Your task to perform on an android device: delete the emails in spam in the gmail app Image 0: 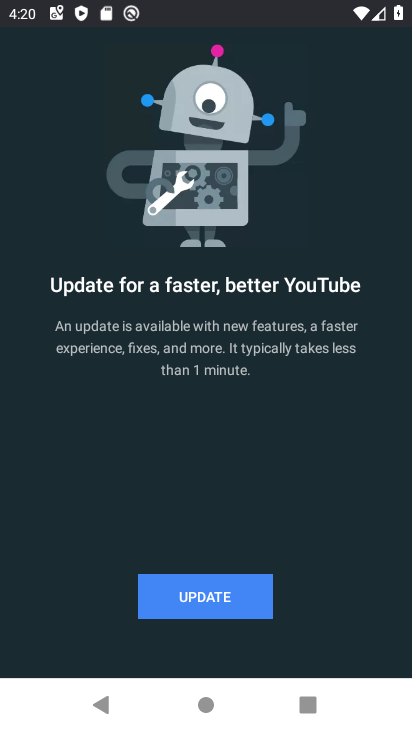
Step 0: click (215, 597)
Your task to perform on an android device: delete the emails in spam in the gmail app Image 1: 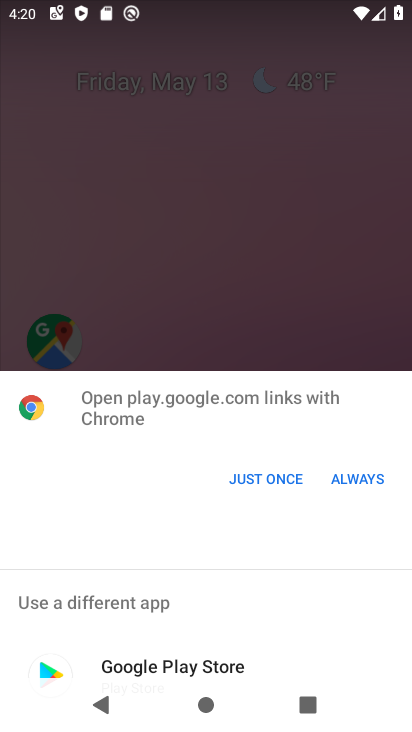
Step 1: press home button
Your task to perform on an android device: delete the emails in spam in the gmail app Image 2: 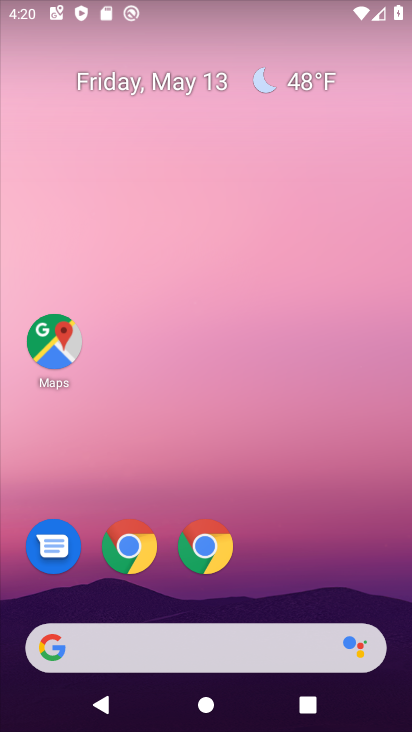
Step 2: click (254, 323)
Your task to perform on an android device: delete the emails in spam in the gmail app Image 3: 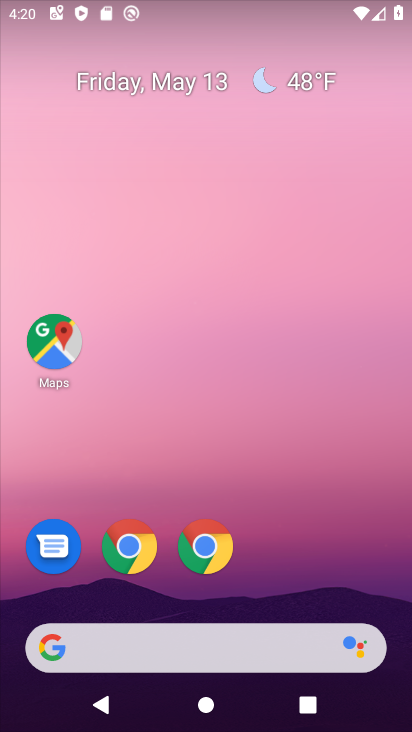
Step 3: drag from (308, 654) to (178, 1)
Your task to perform on an android device: delete the emails in spam in the gmail app Image 4: 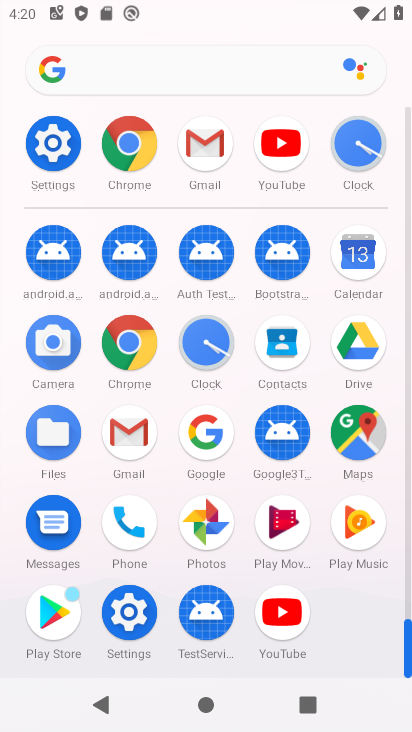
Step 4: click (138, 436)
Your task to perform on an android device: delete the emails in spam in the gmail app Image 5: 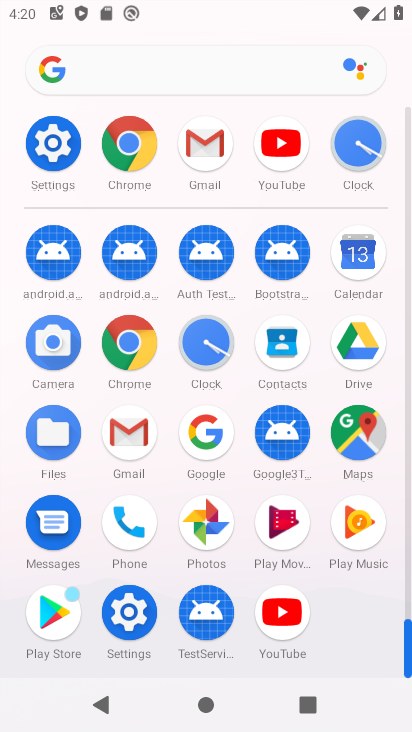
Step 5: click (138, 436)
Your task to perform on an android device: delete the emails in spam in the gmail app Image 6: 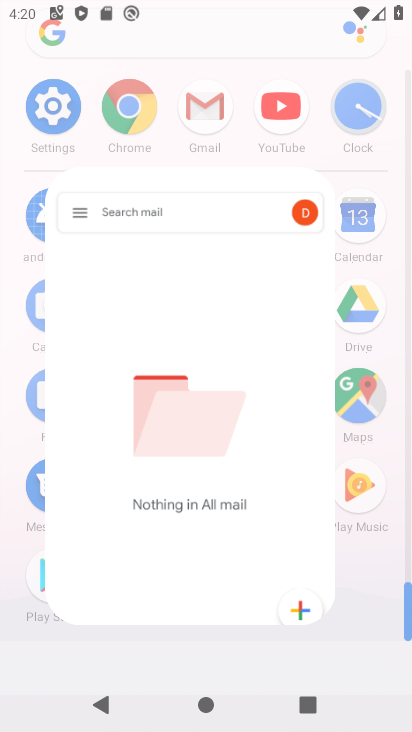
Step 6: click (136, 435)
Your task to perform on an android device: delete the emails in spam in the gmail app Image 7: 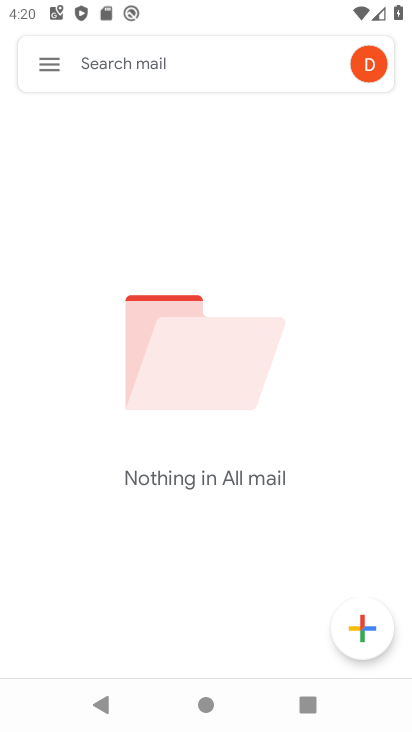
Step 7: click (48, 64)
Your task to perform on an android device: delete the emails in spam in the gmail app Image 8: 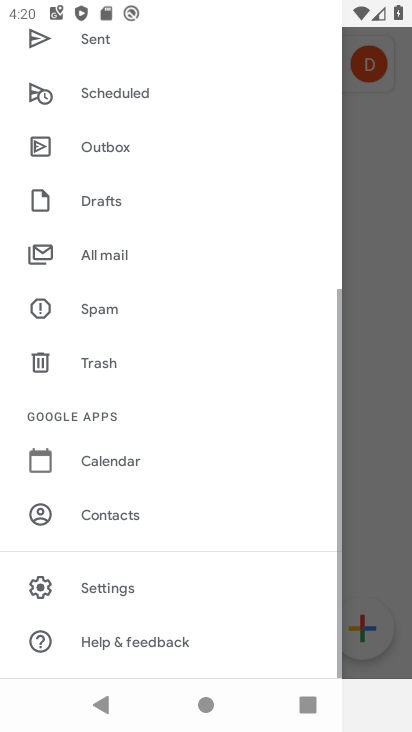
Step 8: click (110, 256)
Your task to perform on an android device: delete the emails in spam in the gmail app Image 9: 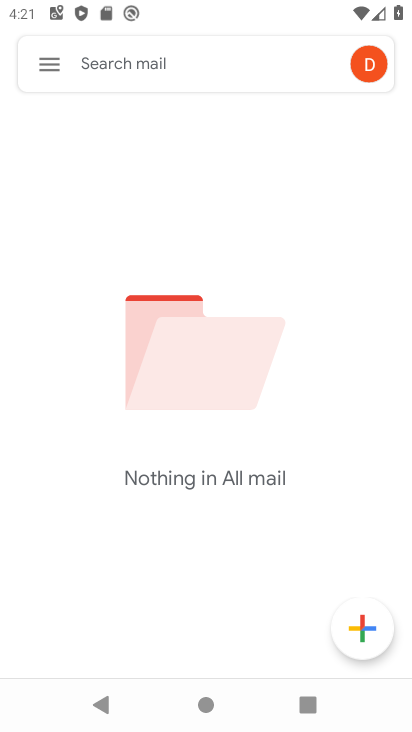
Step 9: task complete